Your task to perform on an android device: check the backup settings in the google photos Image 0: 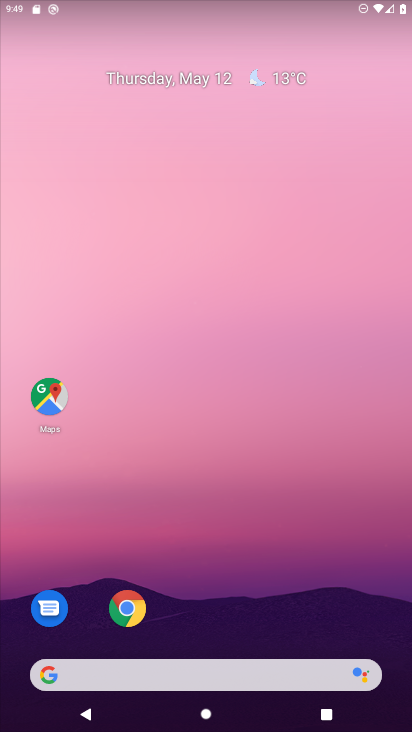
Step 0: drag from (235, 610) to (223, 69)
Your task to perform on an android device: check the backup settings in the google photos Image 1: 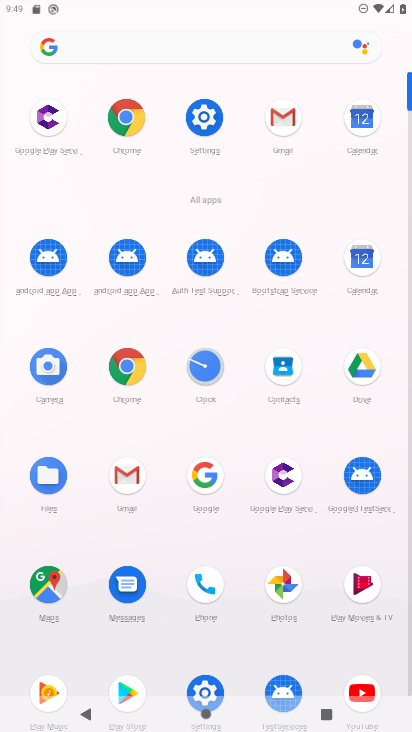
Step 1: click (288, 578)
Your task to perform on an android device: check the backup settings in the google photos Image 2: 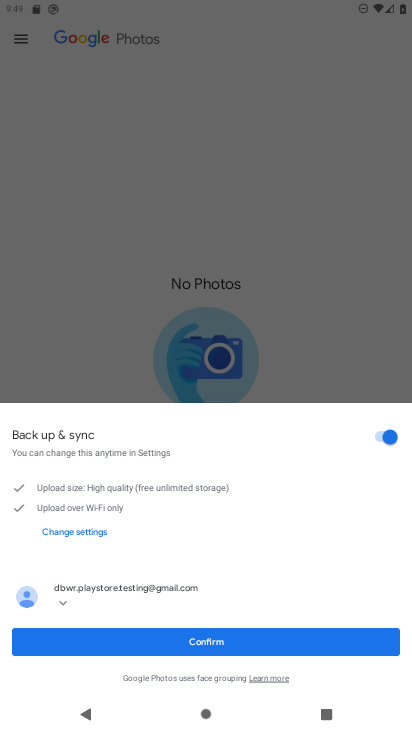
Step 2: click (215, 646)
Your task to perform on an android device: check the backup settings in the google photos Image 3: 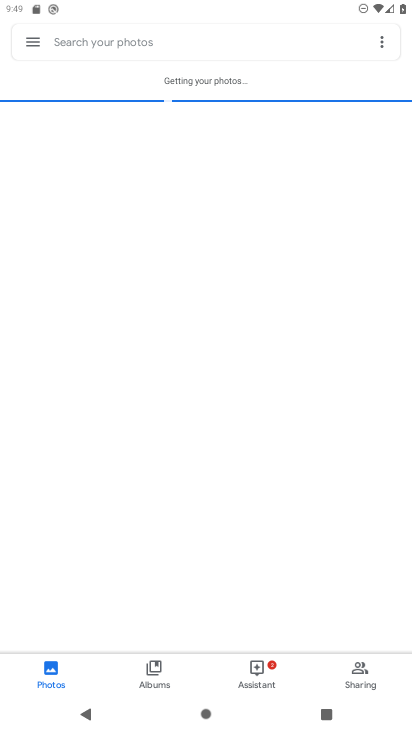
Step 3: click (29, 45)
Your task to perform on an android device: check the backup settings in the google photos Image 4: 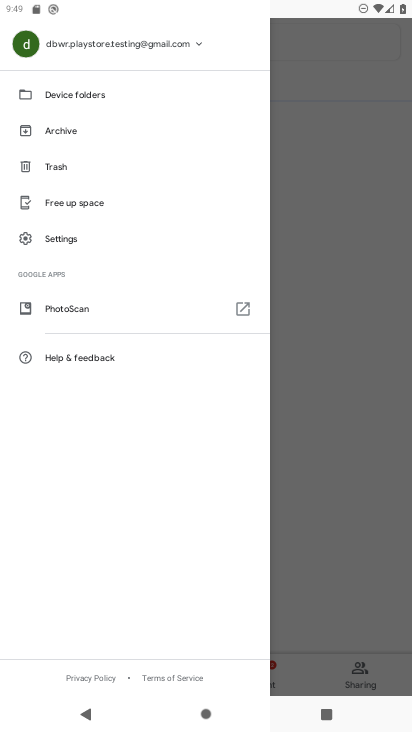
Step 4: click (56, 236)
Your task to perform on an android device: check the backup settings in the google photos Image 5: 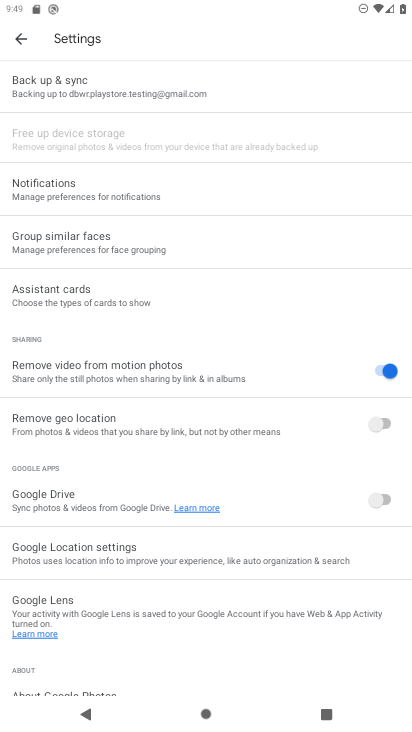
Step 5: click (104, 89)
Your task to perform on an android device: check the backup settings in the google photos Image 6: 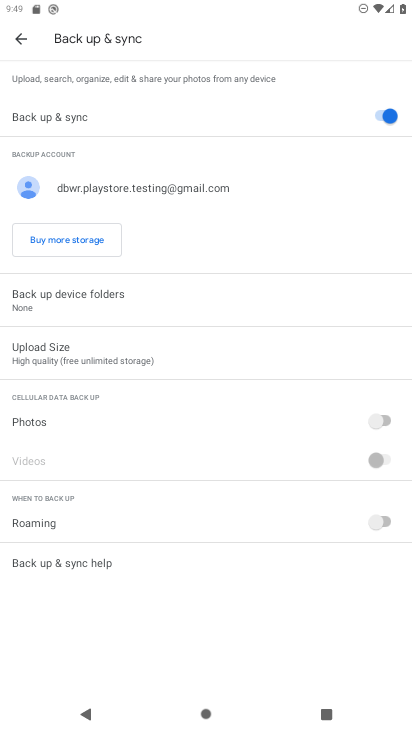
Step 6: task complete